Your task to perform on an android device: Open the map Image 0: 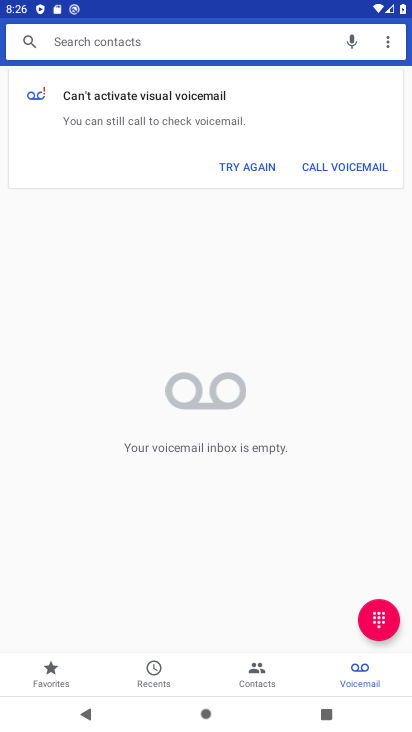
Step 0: drag from (275, 665) to (231, 146)
Your task to perform on an android device: Open the map Image 1: 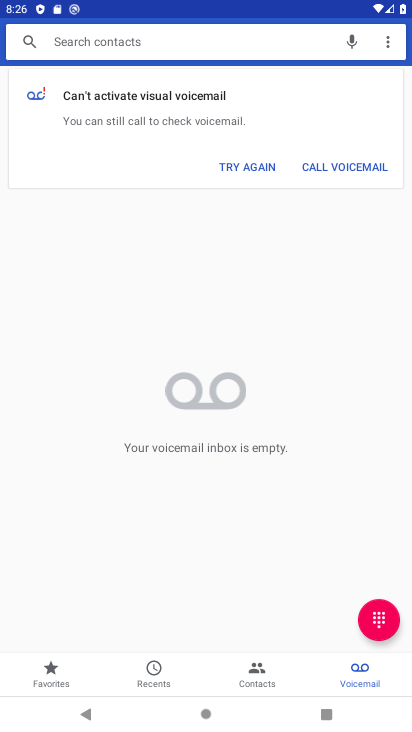
Step 1: press back button
Your task to perform on an android device: Open the map Image 2: 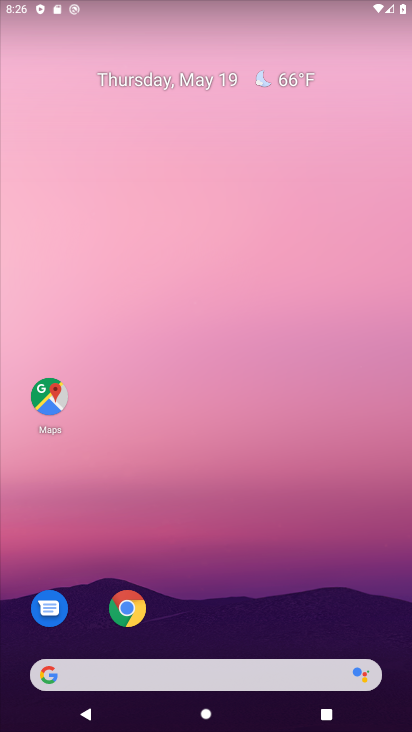
Step 2: drag from (282, 619) to (290, 186)
Your task to perform on an android device: Open the map Image 3: 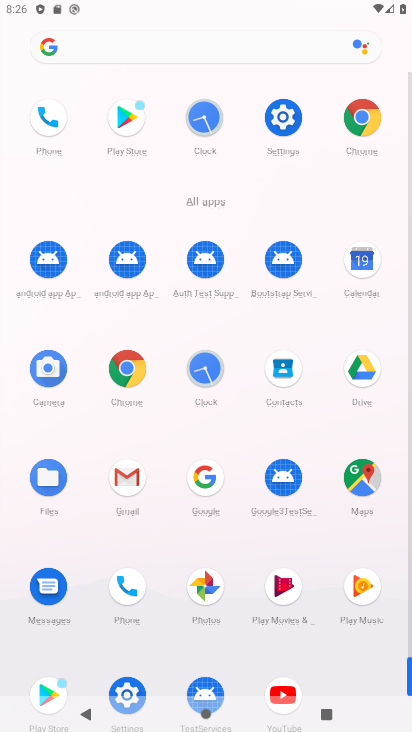
Step 3: click (348, 492)
Your task to perform on an android device: Open the map Image 4: 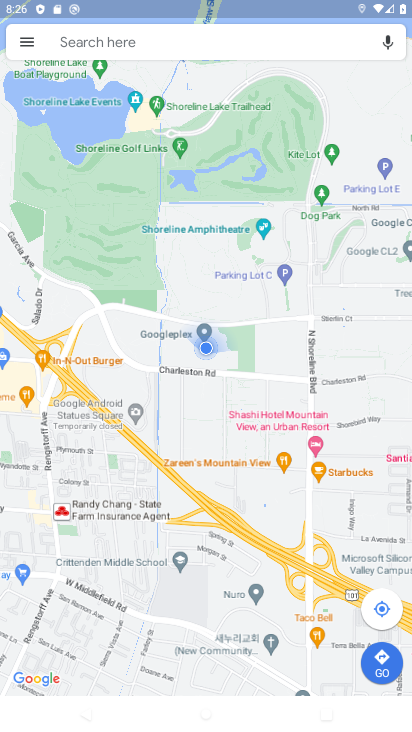
Step 4: task complete